Your task to perform on an android device: Open Maps and search for coffee Image 0: 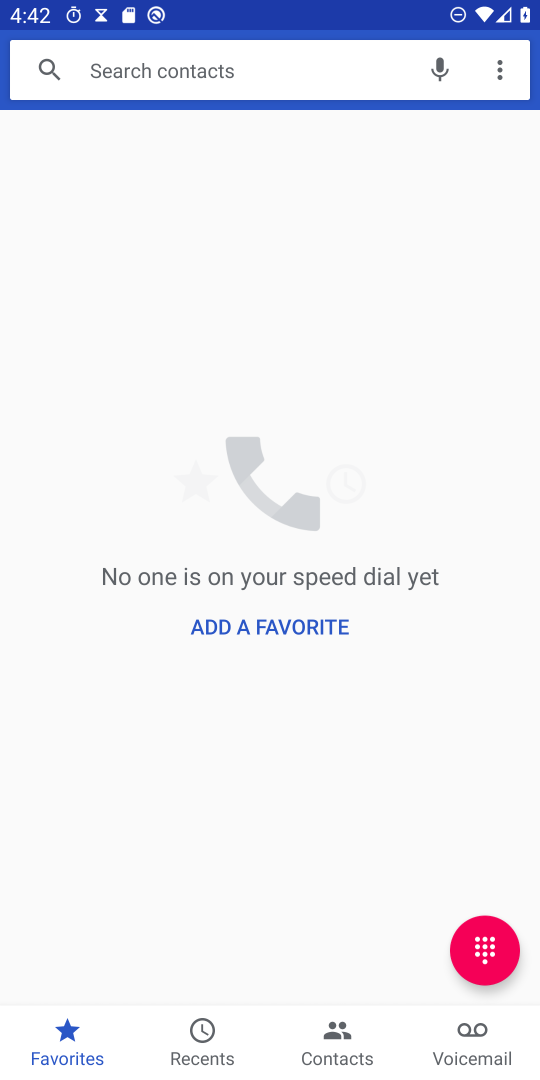
Step 0: press home button
Your task to perform on an android device: Open Maps and search for coffee Image 1: 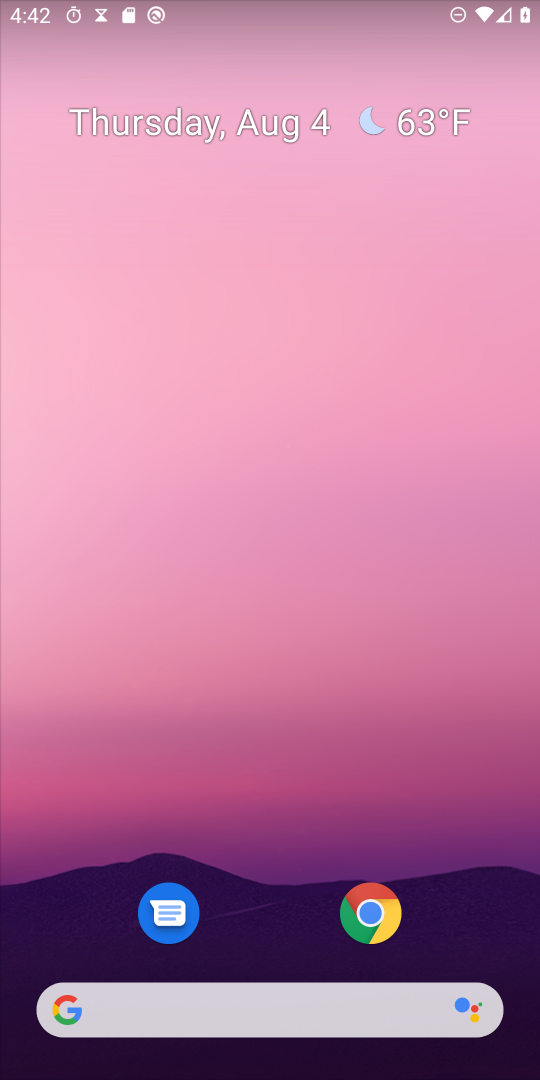
Step 1: drag from (269, 1002) to (317, 101)
Your task to perform on an android device: Open Maps and search for coffee Image 2: 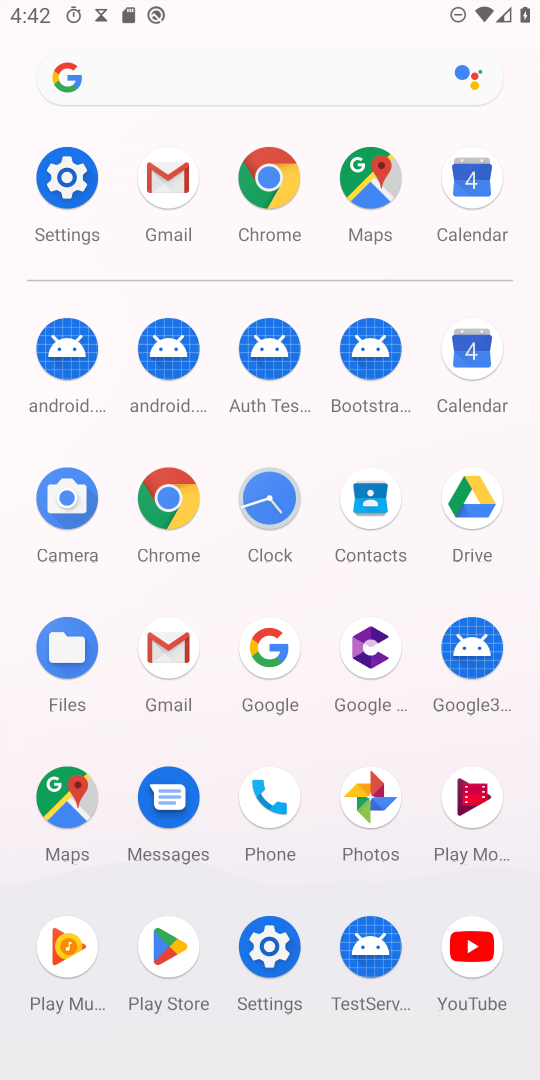
Step 2: click (64, 803)
Your task to perform on an android device: Open Maps and search for coffee Image 3: 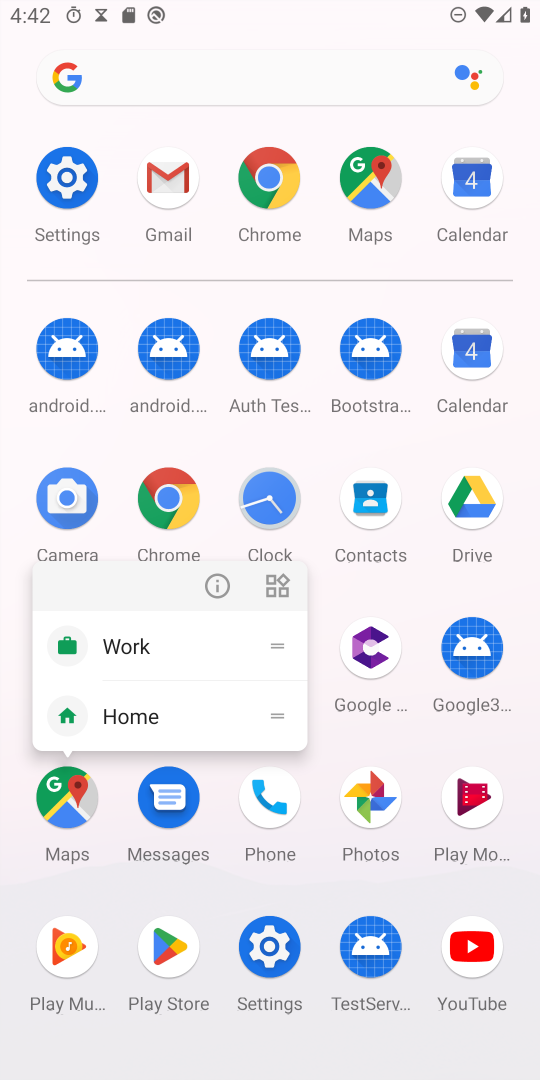
Step 3: click (49, 796)
Your task to perform on an android device: Open Maps and search for coffee Image 4: 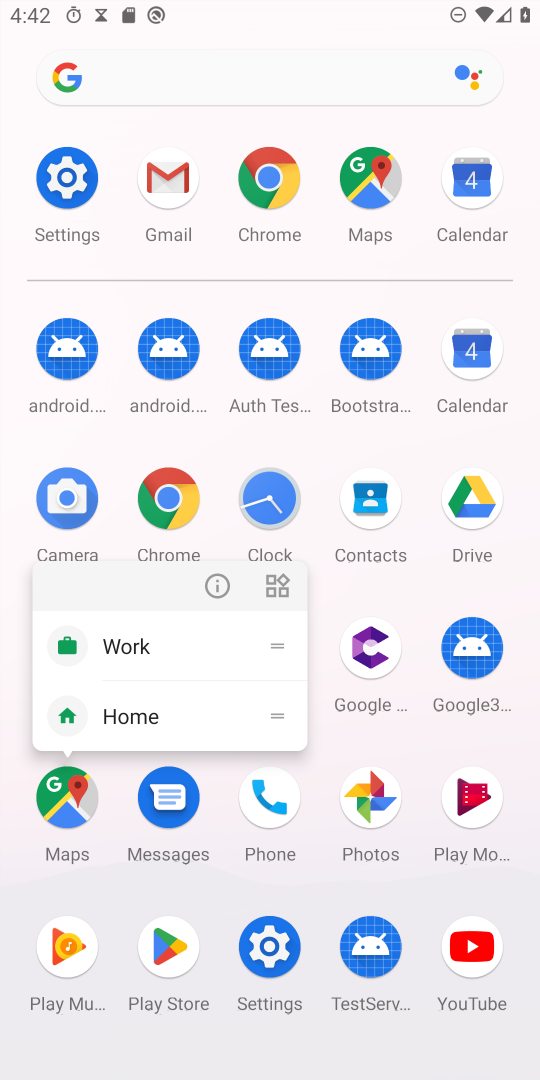
Step 4: click (49, 796)
Your task to perform on an android device: Open Maps and search for coffee Image 5: 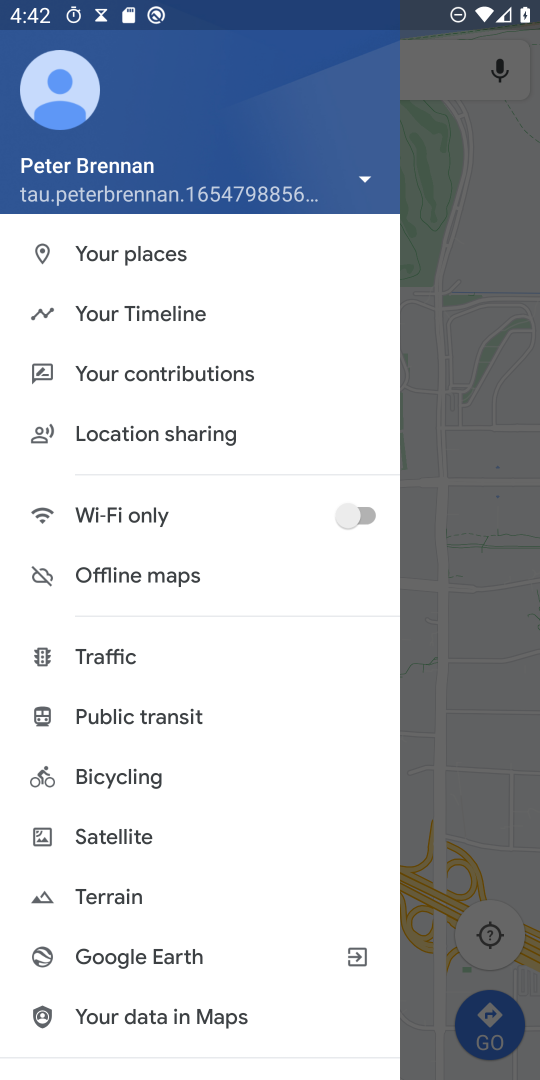
Step 5: click (461, 238)
Your task to perform on an android device: Open Maps and search for coffee Image 6: 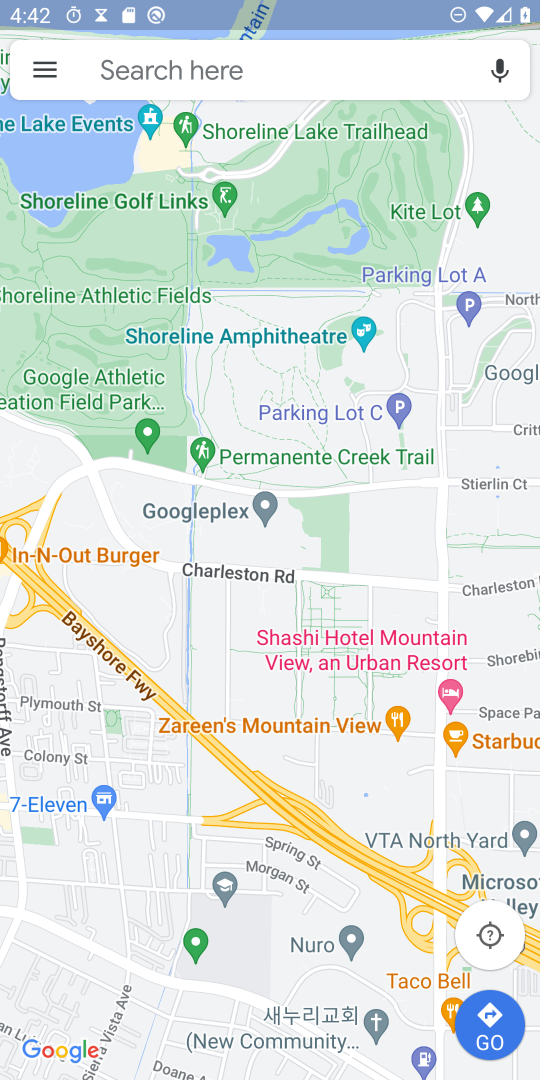
Step 6: click (399, 64)
Your task to perform on an android device: Open Maps and search for coffee Image 7: 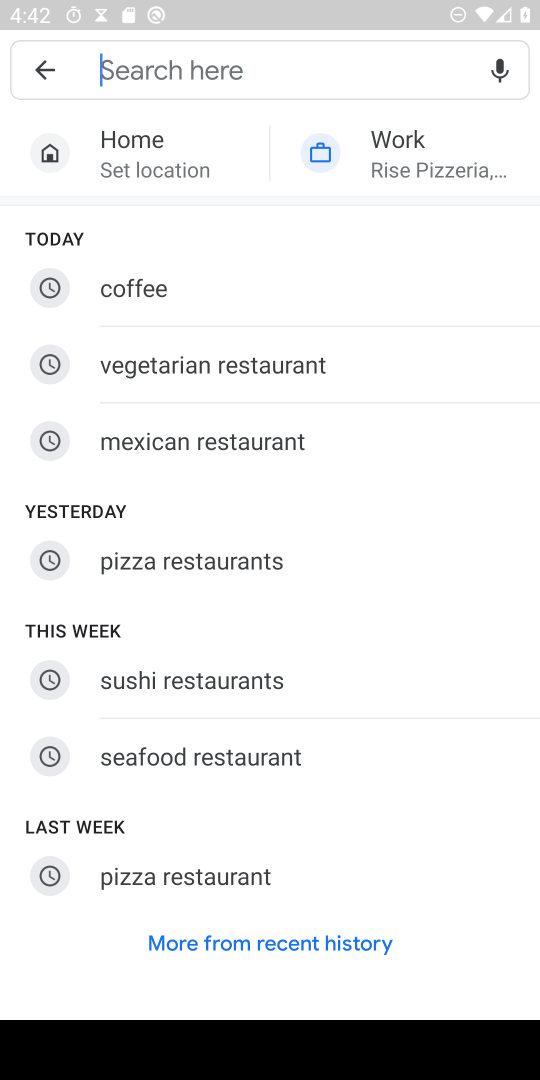
Step 7: click (215, 283)
Your task to perform on an android device: Open Maps and search for coffee Image 8: 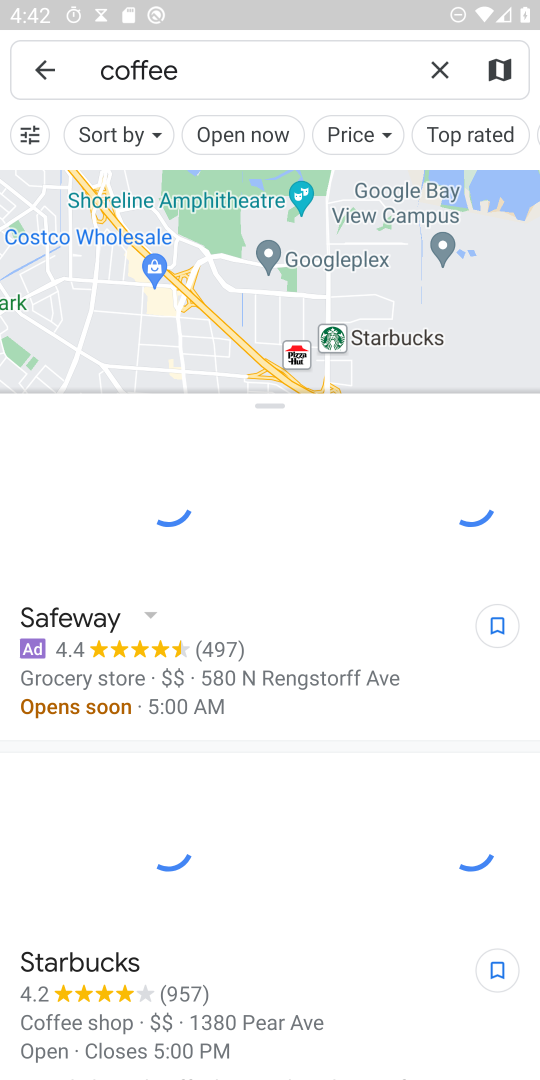
Step 8: task complete